Your task to perform on an android device: turn off wifi Image 0: 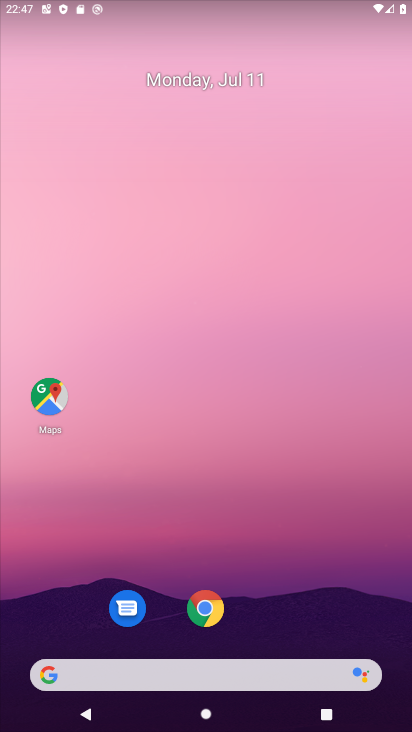
Step 0: drag from (97, 617) to (332, 22)
Your task to perform on an android device: turn off wifi Image 1: 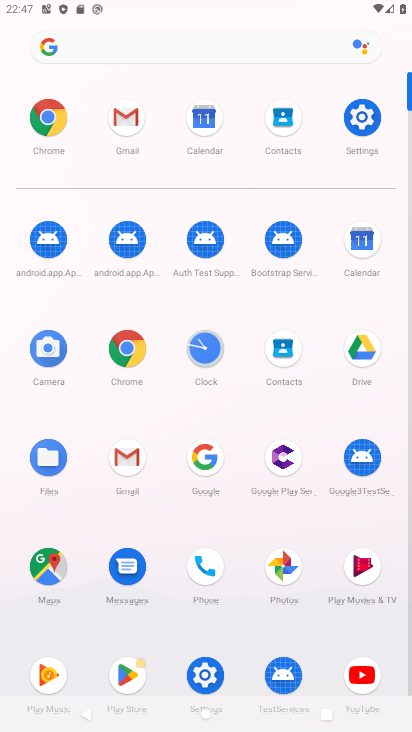
Step 1: click (209, 672)
Your task to perform on an android device: turn off wifi Image 2: 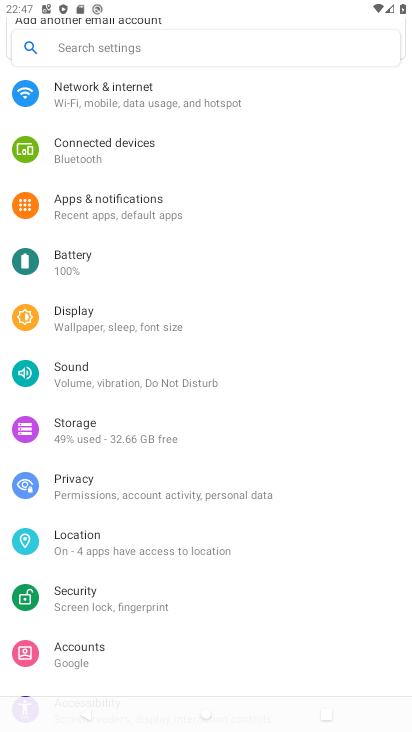
Step 2: click (208, 100)
Your task to perform on an android device: turn off wifi Image 3: 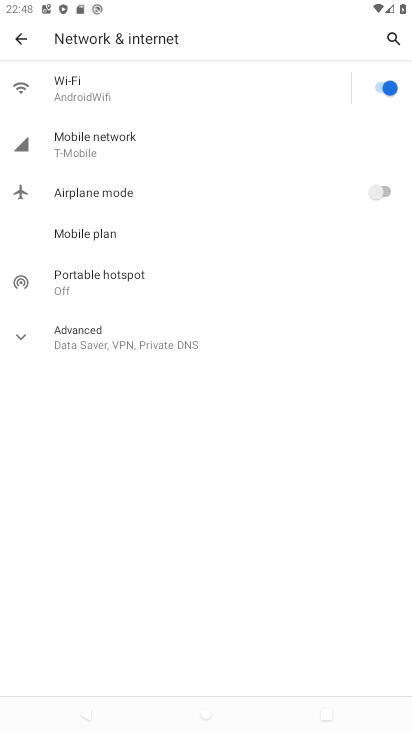
Step 3: click (383, 92)
Your task to perform on an android device: turn off wifi Image 4: 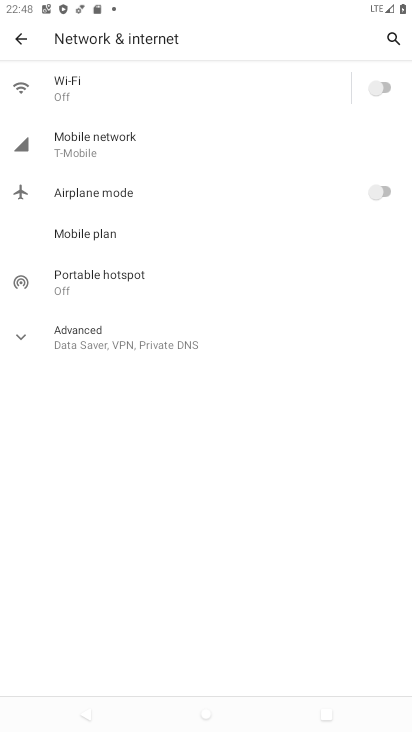
Step 4: task complete